Your task to perform on an android device: open a bookmark in the chrome app Image 0: 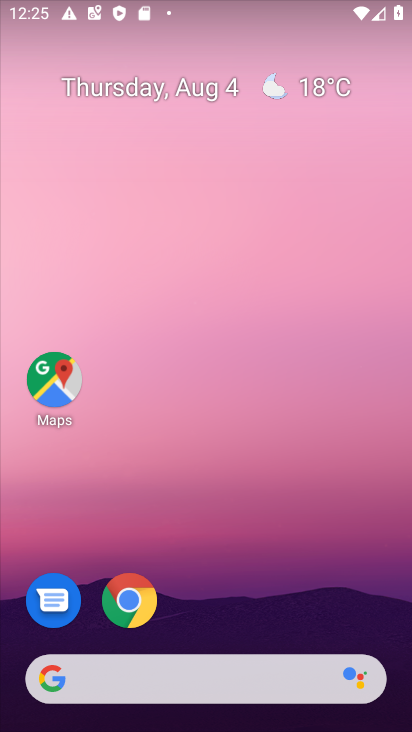
Step 0: click (124, 603)
Your task to perform on an android device: open a bookmark in the chrome app Image 1: 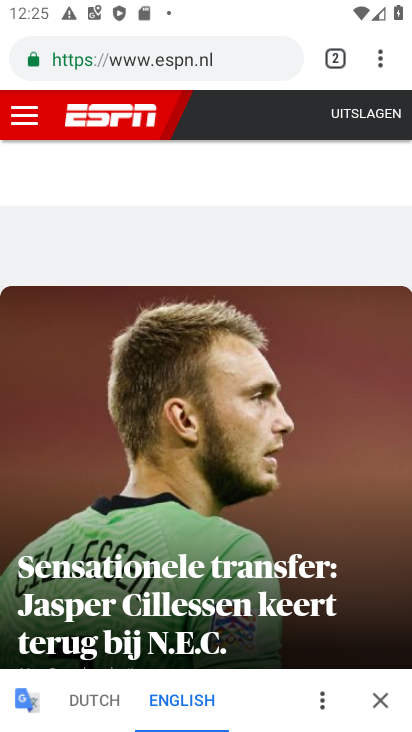
Step 1: drag from (379, 61) to (169, 302)
Your task to perform on an android device: open a bookmark in the chrome app Image 2: 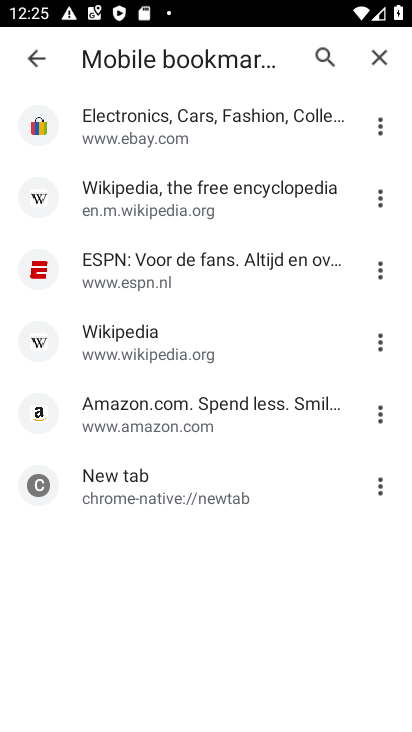
Step 2: click (155, 129)
Your task to perform on an android device: open a bookmark in the chrome app Image 3: 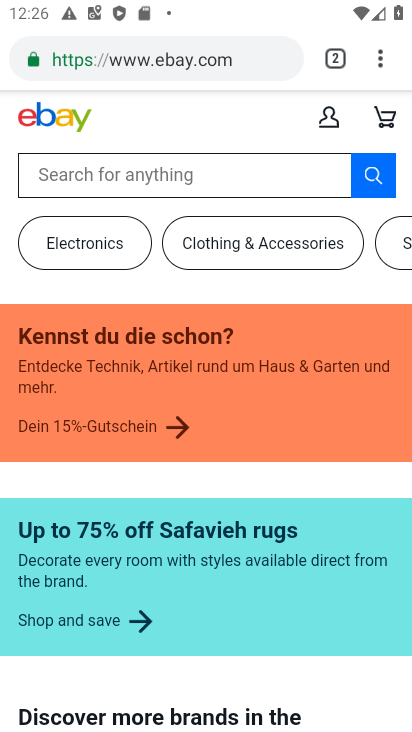
Step 3: task complete